Your task to perform on an android device: What's the weather going to be this weekend? Image 0: 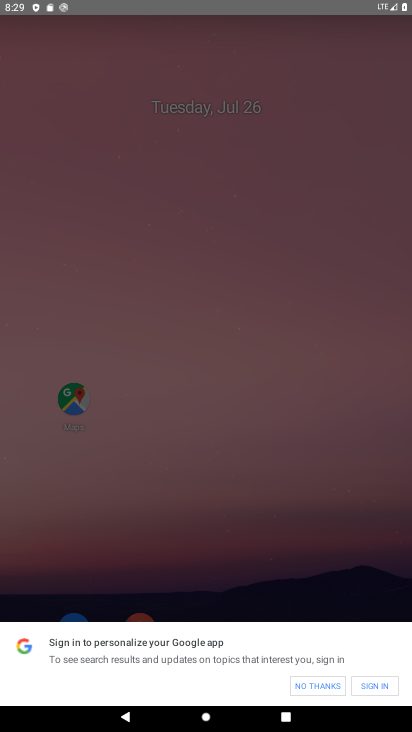
Step 0: press home button
Your task to perform on an android device: What's the weather going to be this weekend? Image 1: 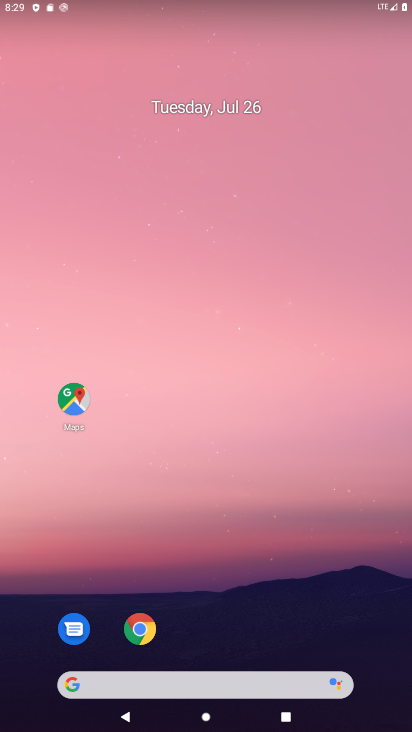
Step 1: drag from (185, 669) to (148, 45)
Your task to perform on an android device: What's the weather going to be this weekend? Image 2: 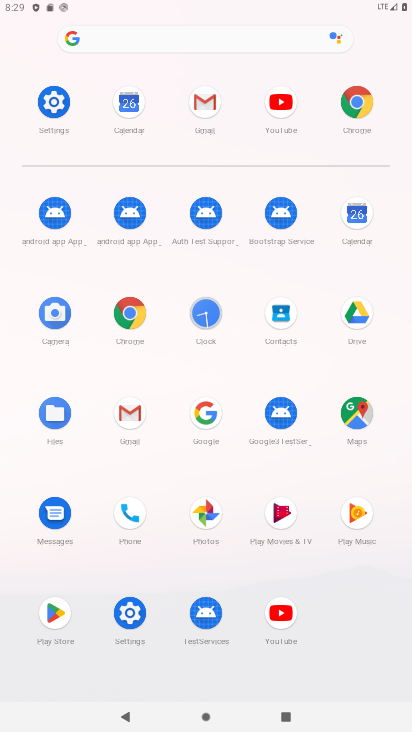
Step 2: click (342, 198)
Your task to perform on an android device: What's the weather going to be this weekend? Image 3: 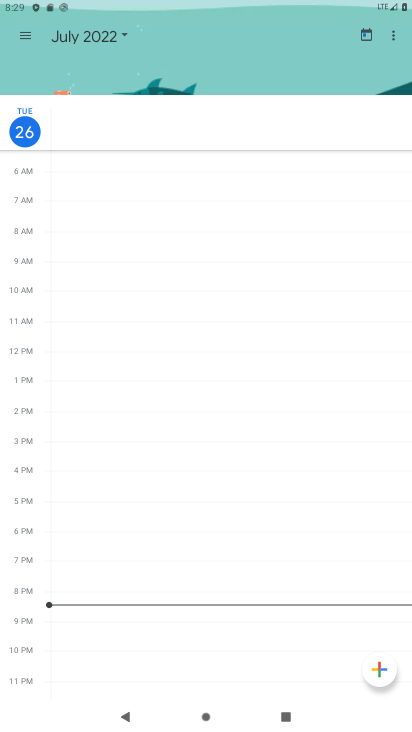
Step 3: press home button
Your task to perform on an android device: What's the weather going to be this weekend? Image 4: 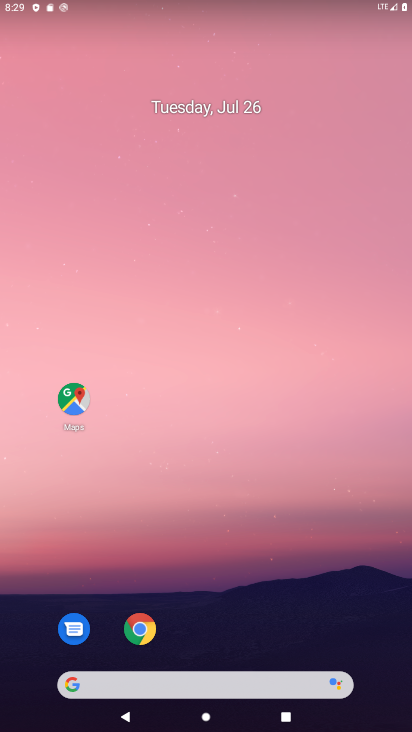
Step 4: click (171, 691)
Your task to perform on an android device: What's the weather going to be this weekend? Image 5: 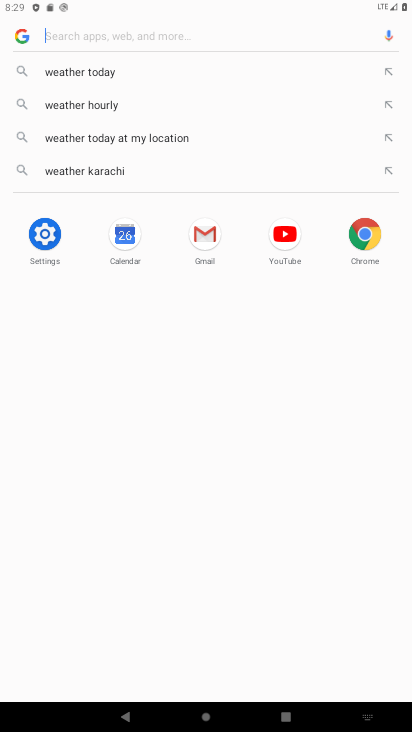
Step 5: click (64, 71)
Your task to perform on an android device: What's the weather going to be this weekend? Image 6: 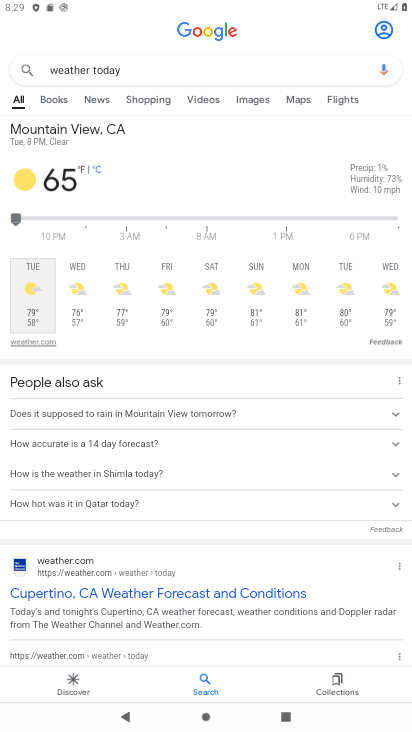
Step 6: task complete